Your task to perform on an android device: empty trash in the gmail app Image 0: 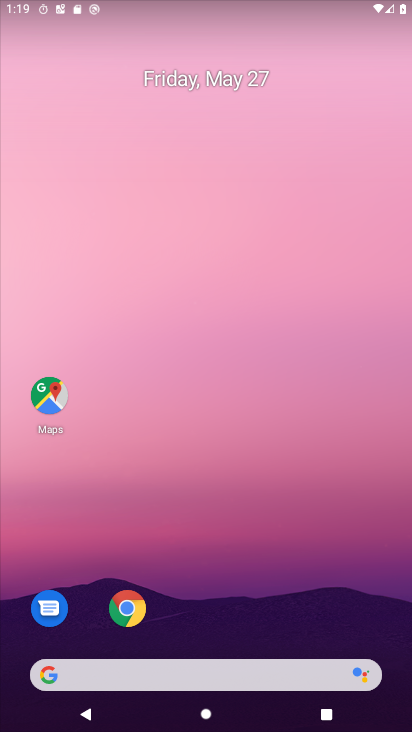
Step 0: drag from (386, 634) to (346, 128)
Your task to perform on an android device: empty trash in the gmail app Image 1: 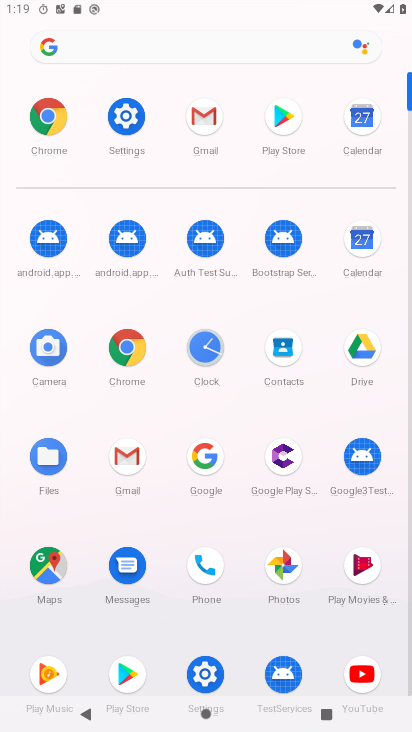
Step 1: click (107, 456)
Your task to perform on an android device: empty trash in the gmail app Image 2: 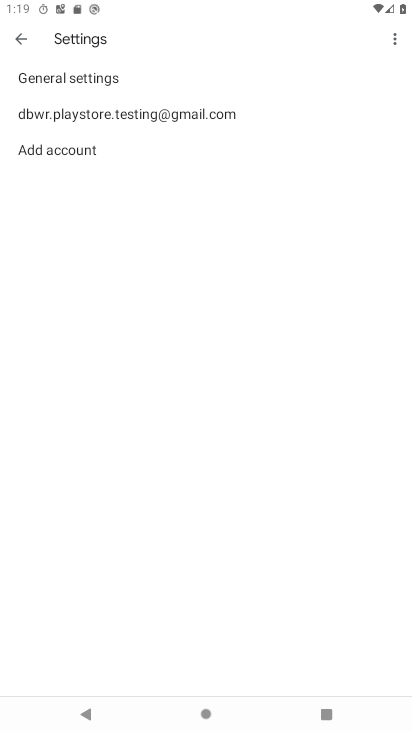
Step 2: click (21, 48)
Your task to perform on an android device: empty trash in the gmail app Image 3: 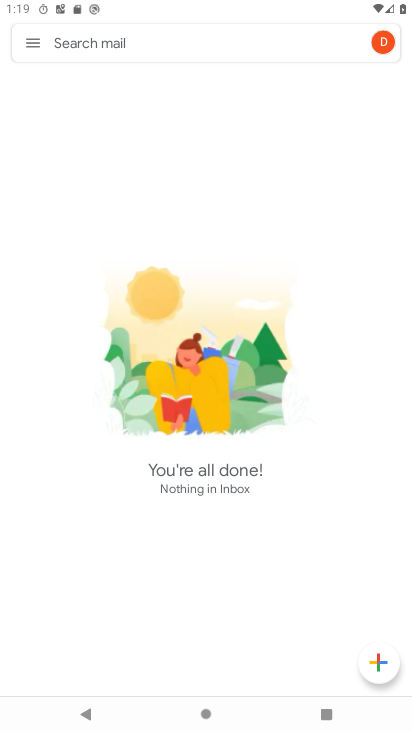
Step 3: click (24, 37)
Your task to perform on an android device: empty trash in the gmail app Image 4: 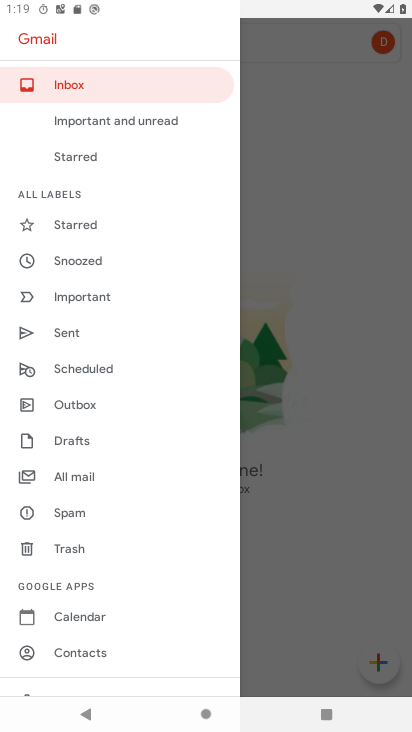
Step 4: click (48, 547)
Your task to perform on an android device: empty trash in the gmail app Image 5: 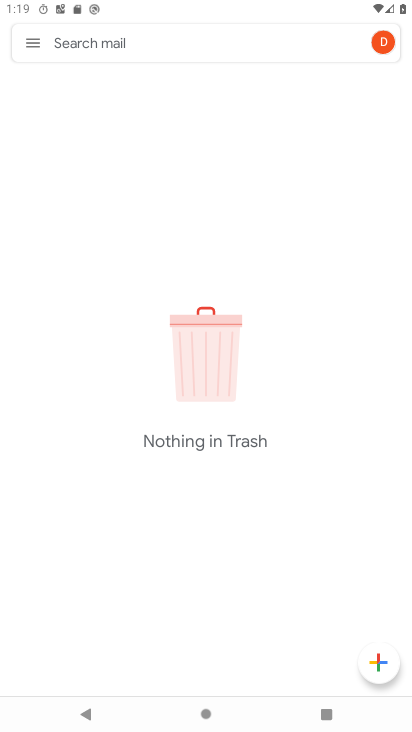
Step 5: task complete